Your task to perform on an android device: Open Reddit.com Image 0: 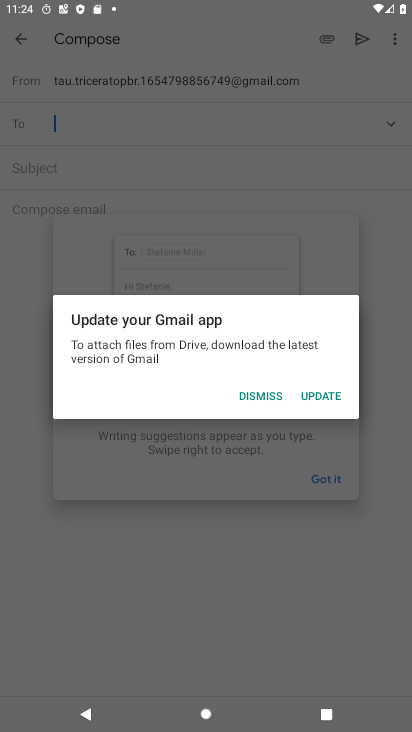
Step 0: press home button
Your task to perform on an android device: Open Reddit.com Image 1: 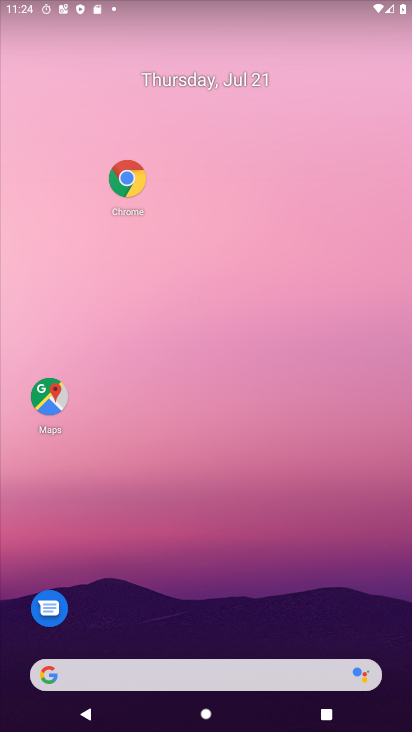
Step 1: click (129, 165)
Your task to perform on an android device: Open Reddit.com Image 2: 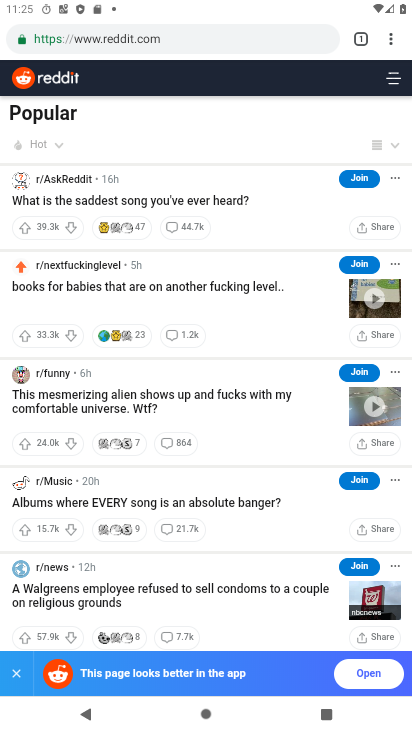
Step 2: click (169, 36)
Your task to perform on an android device: Open Reddit.com Image 3: 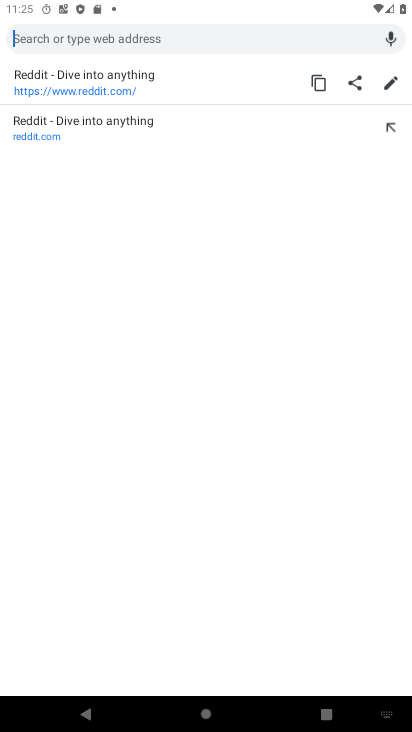
Step 3: click (123, 90)
Your task to perform on an android device: Open Reddit.com Image 4: 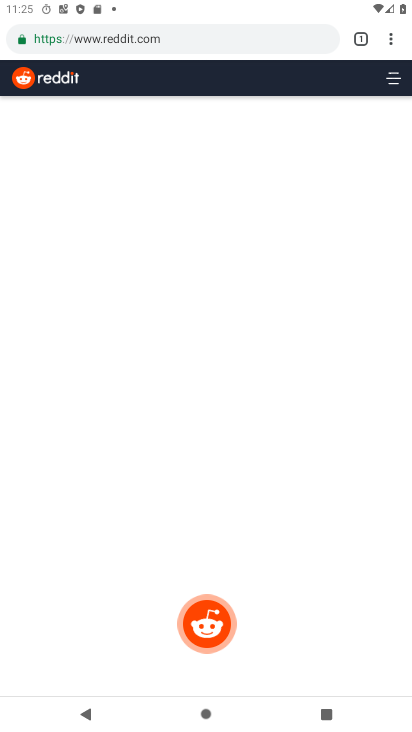
Step 4: task complete